Your task to perform on an android device: What's the weather going to be this weekend? Image 0: 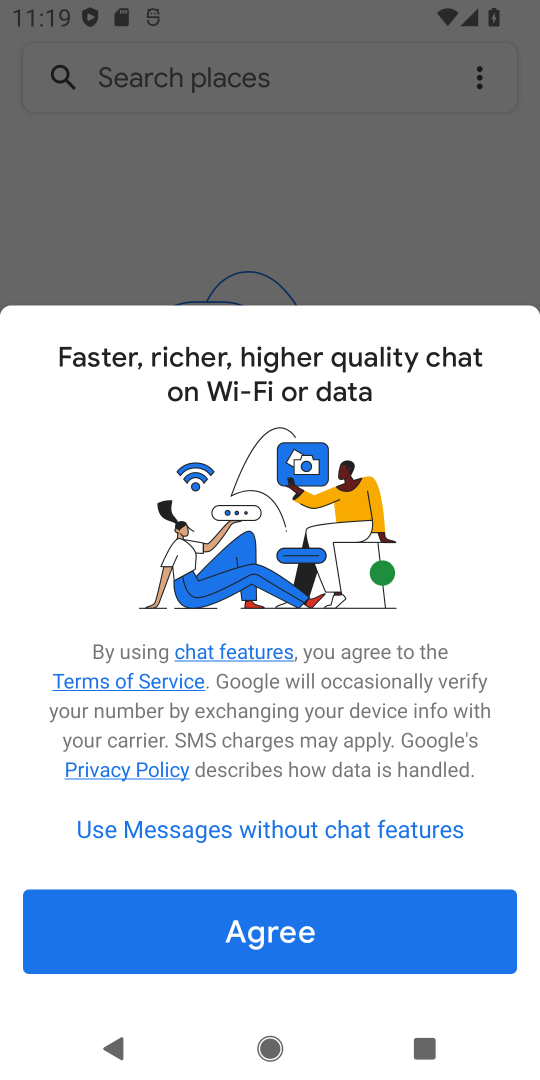
Step 0: press home button
Your task to perform on an android device: What's the weather going to be this weekend? Image 1: 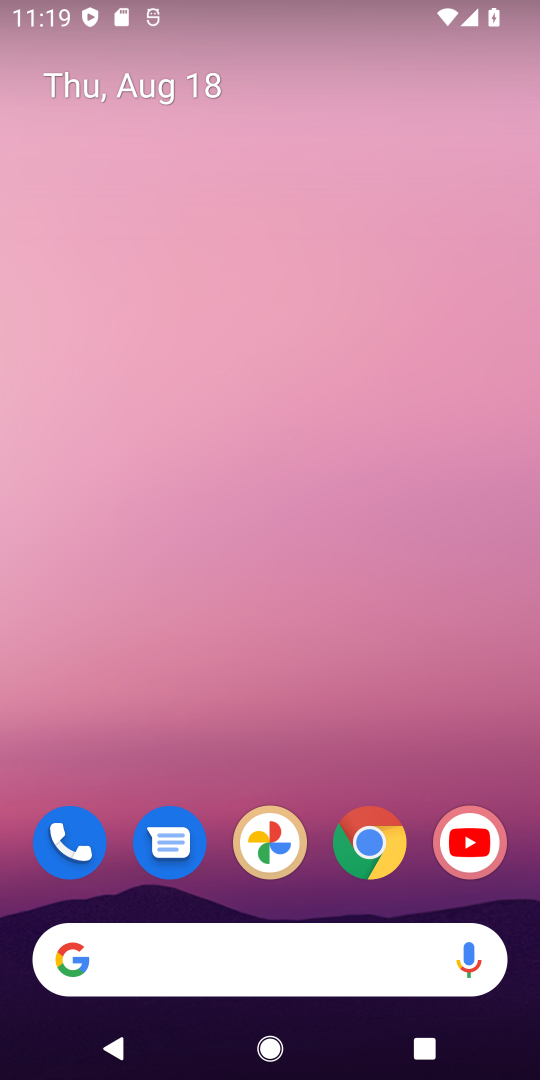
Step 1: click (240, 934)
Your task to perform on an android device: What's the weather going to be this weekend? Image 2: 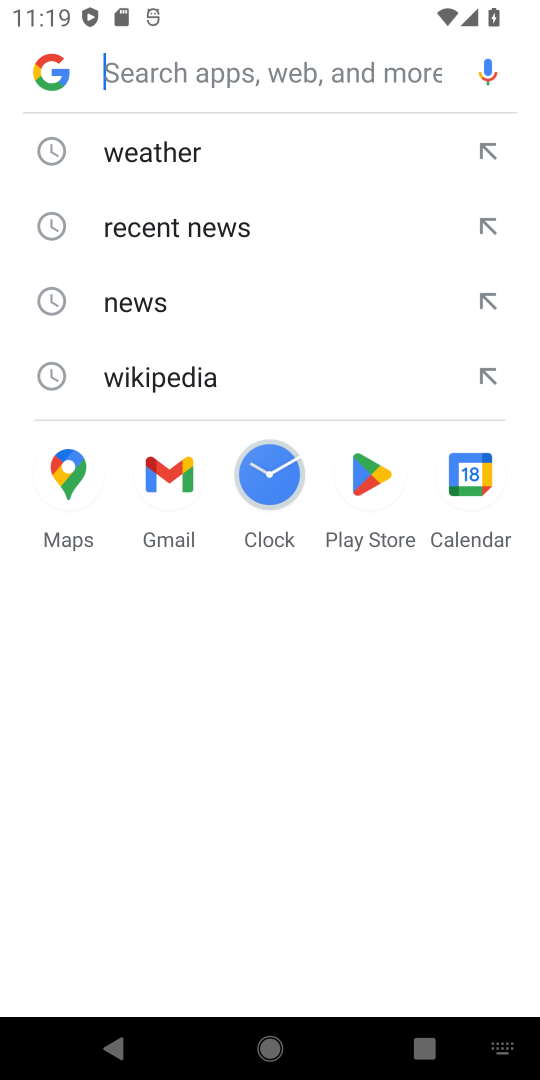
Step 2: click (159, 160)
Your task to perform on an android device: What's the weather going to be this weekend? Image 3: 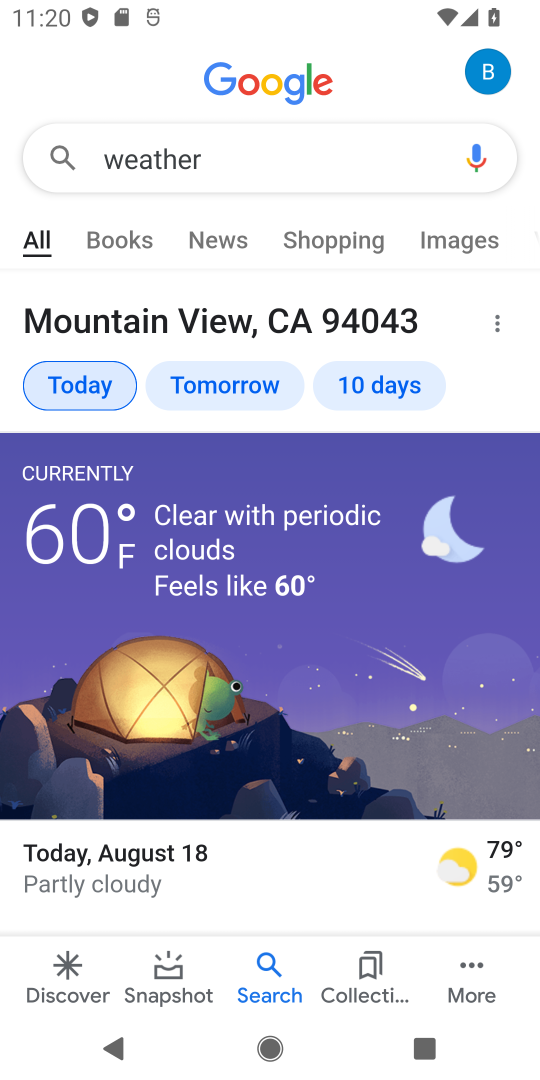
Step 3: click (387, 375)
Your task to perform on an android device: What's the weather going to be this weekend? Image 4: 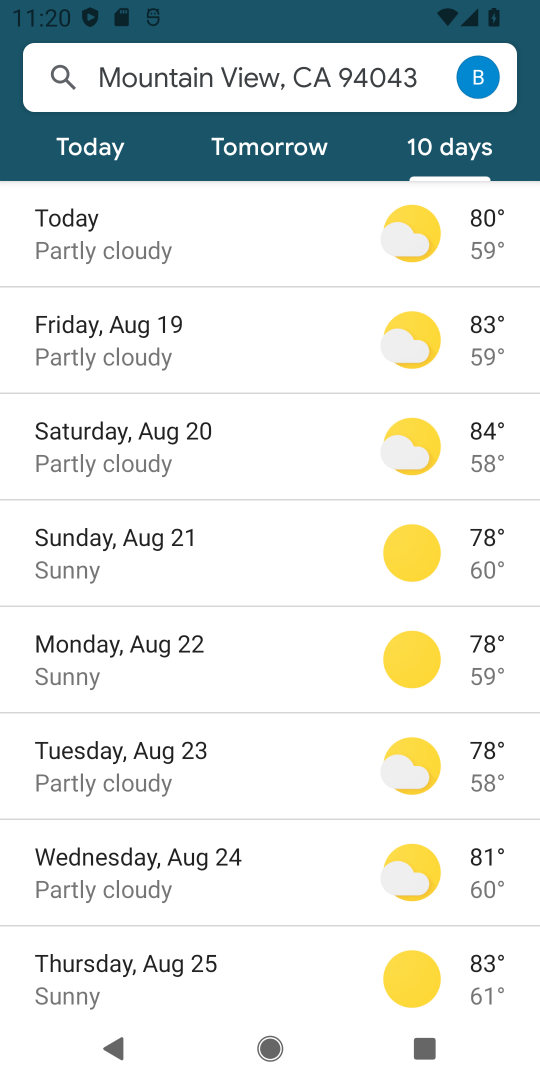
Step 4: drag from (236, 846) to (199, 296)
Your task to perform on an android device: What's the weather going to be this weekend? Image 5: 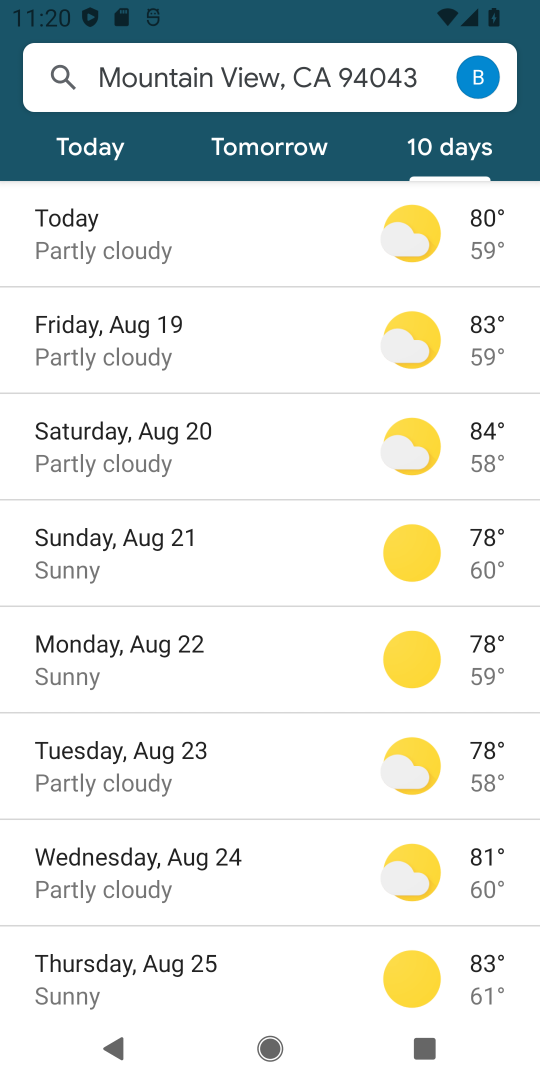
Step 5: click (319, 577)
Your task to perform on an android device: What's the weather going to be this weekend? Image 6: 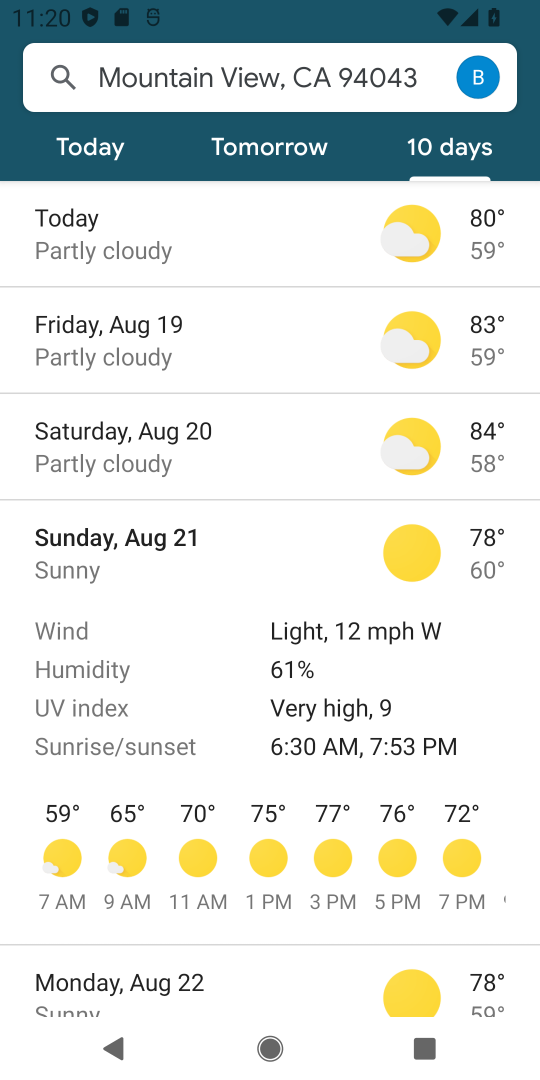
Step 6: task complete